Your task to perform on an android device: Empty the shopping cart on amazon. Add "logitech g502" to the cart on amazon, then select checkout. Image 0: 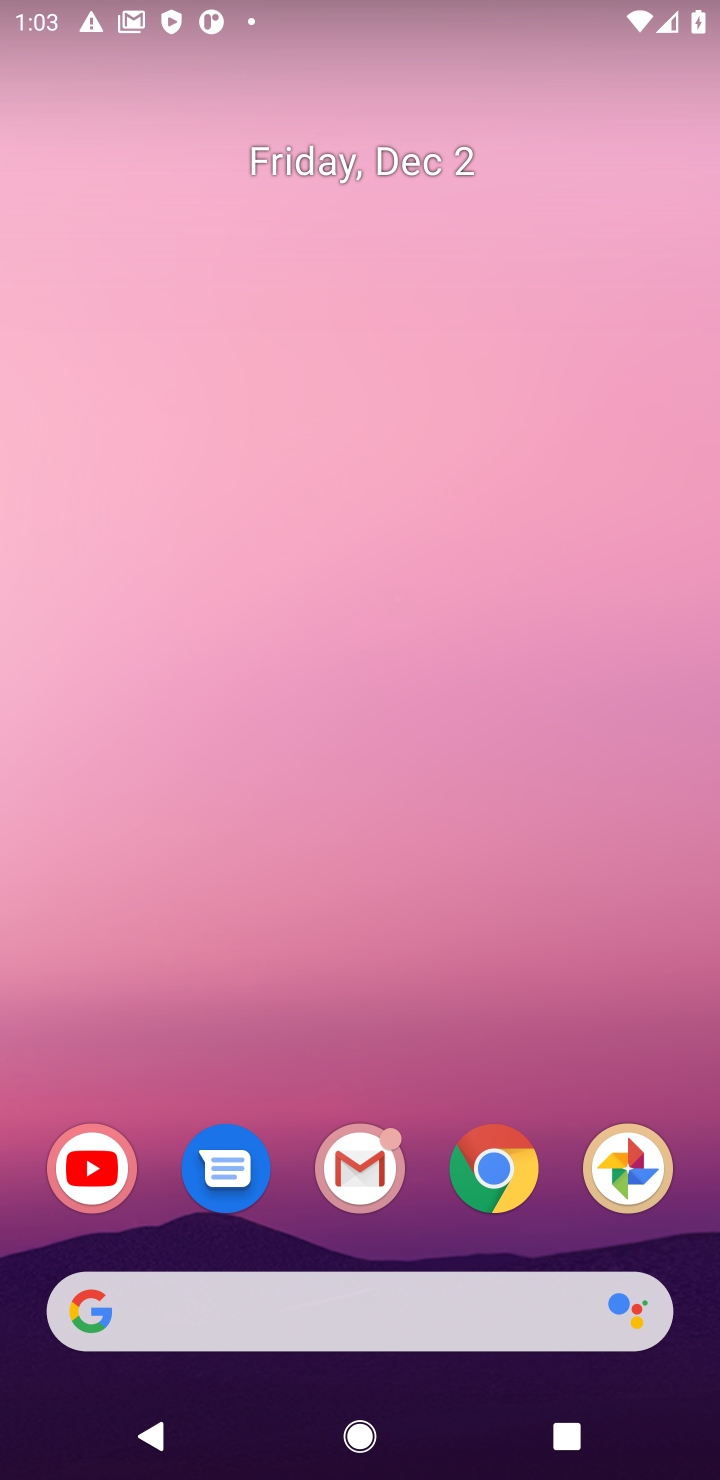
Step 0: click (484, 1169)
Your task to perform on an android device: Empty the shopping cart on amazon. Add "logitech g502" to the cart on amazon, then select checkout. Image 1: 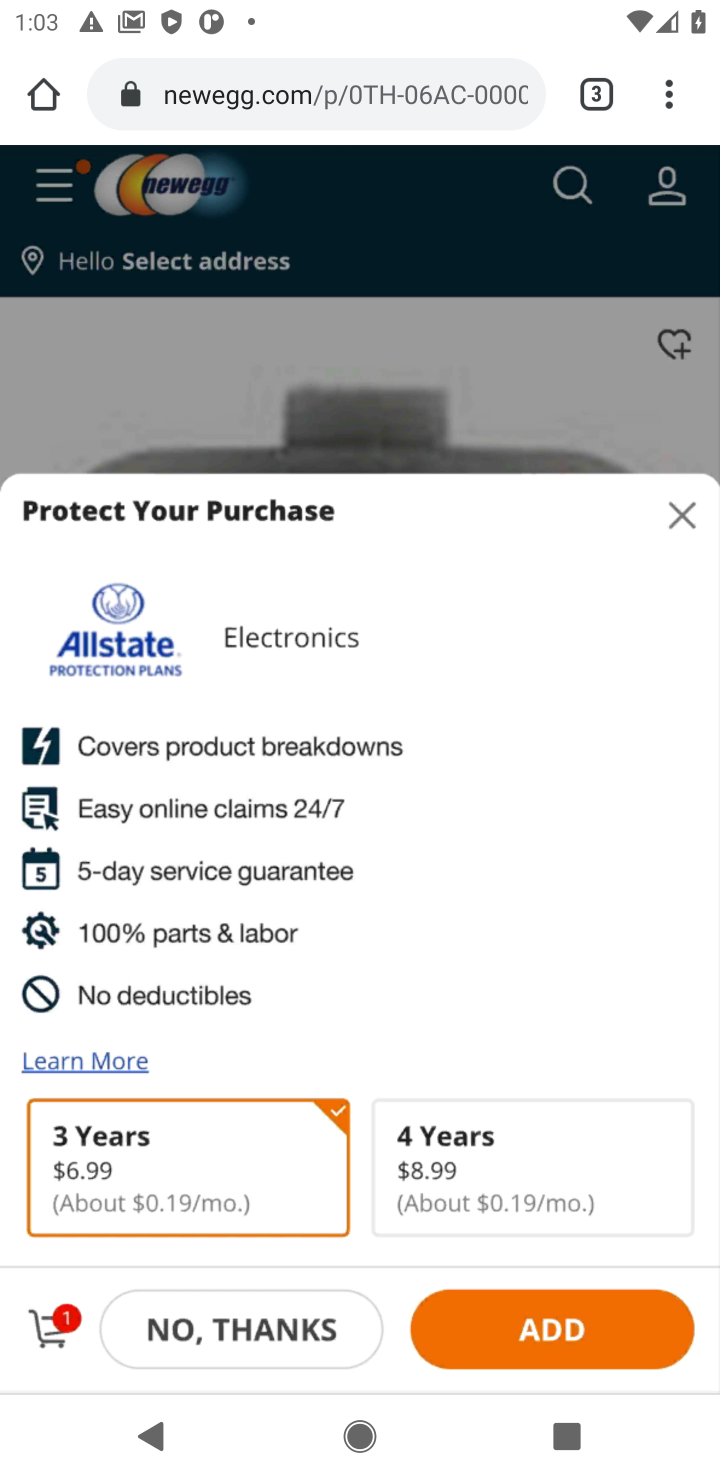
Step 1: click (330, 103)
Your task to perform on an android device: Empty the shopping cart on amazon. Add "logitech g502" to the cart on amazon, then select checkout. Image 2: 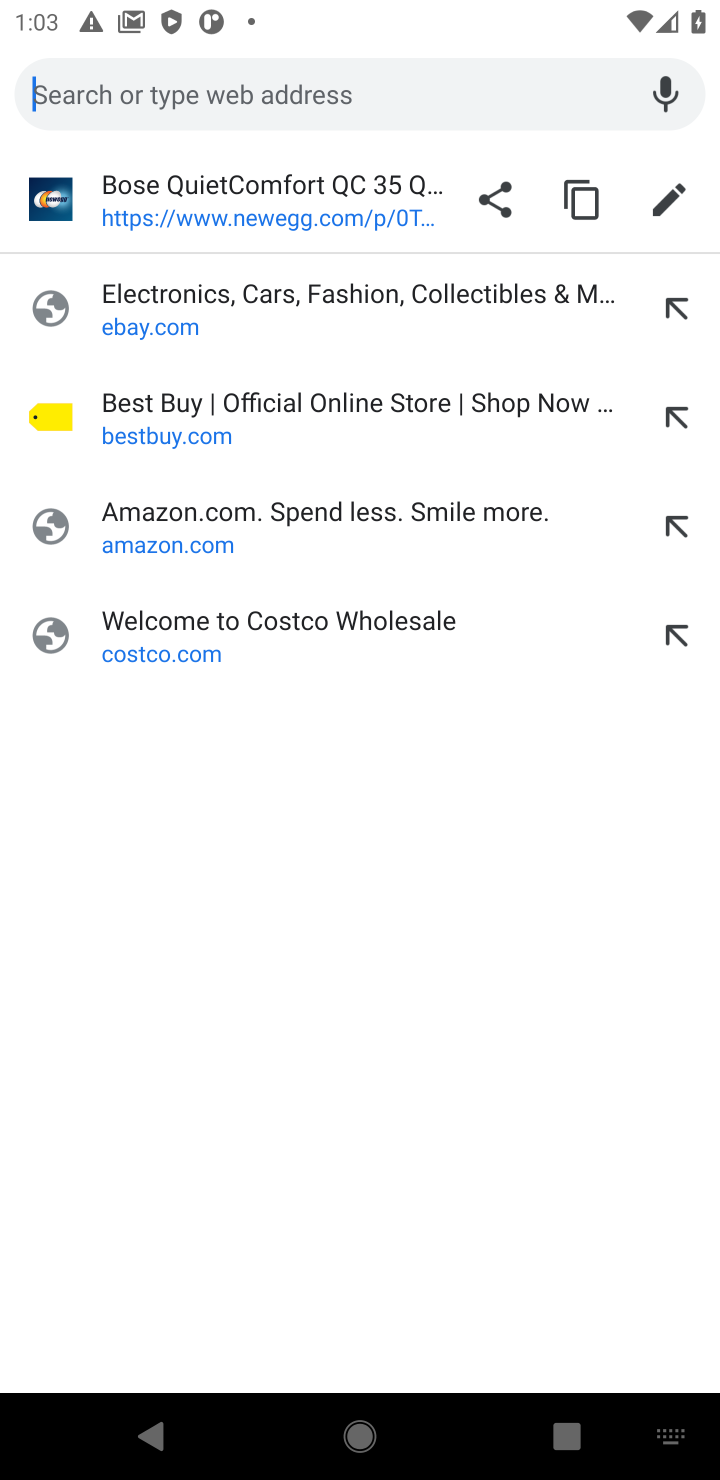
Step 2: click (155, 543)
Your task to perform on an android device: Empty the shopping cart on amazon. Add "logitech g502" to the cart on amazon, then select checkout. Image 3: 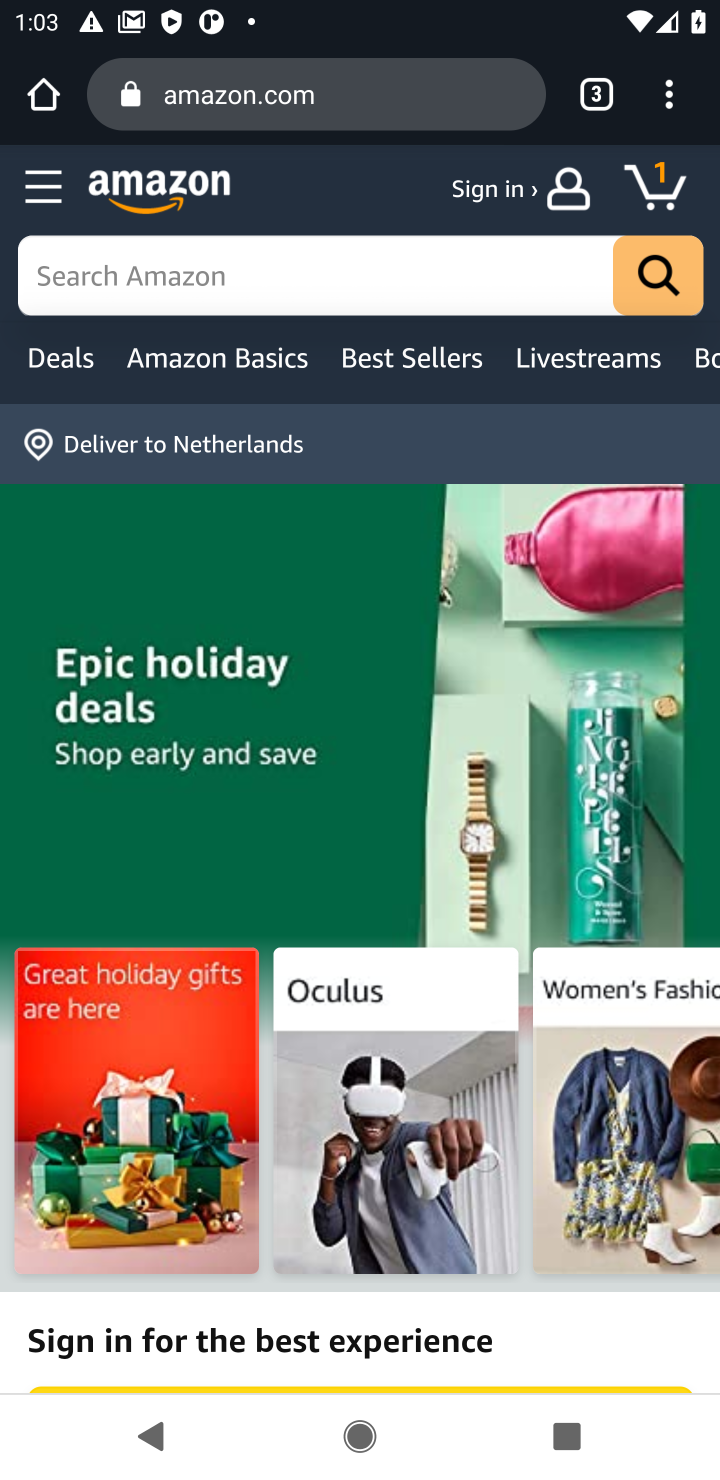
Step 3: click (657, 185)
Your task to perform on an android device: Empty the shopping cart on amazon. Add "logitech g502" to the cart on amazon, then select checkout. Image 4: 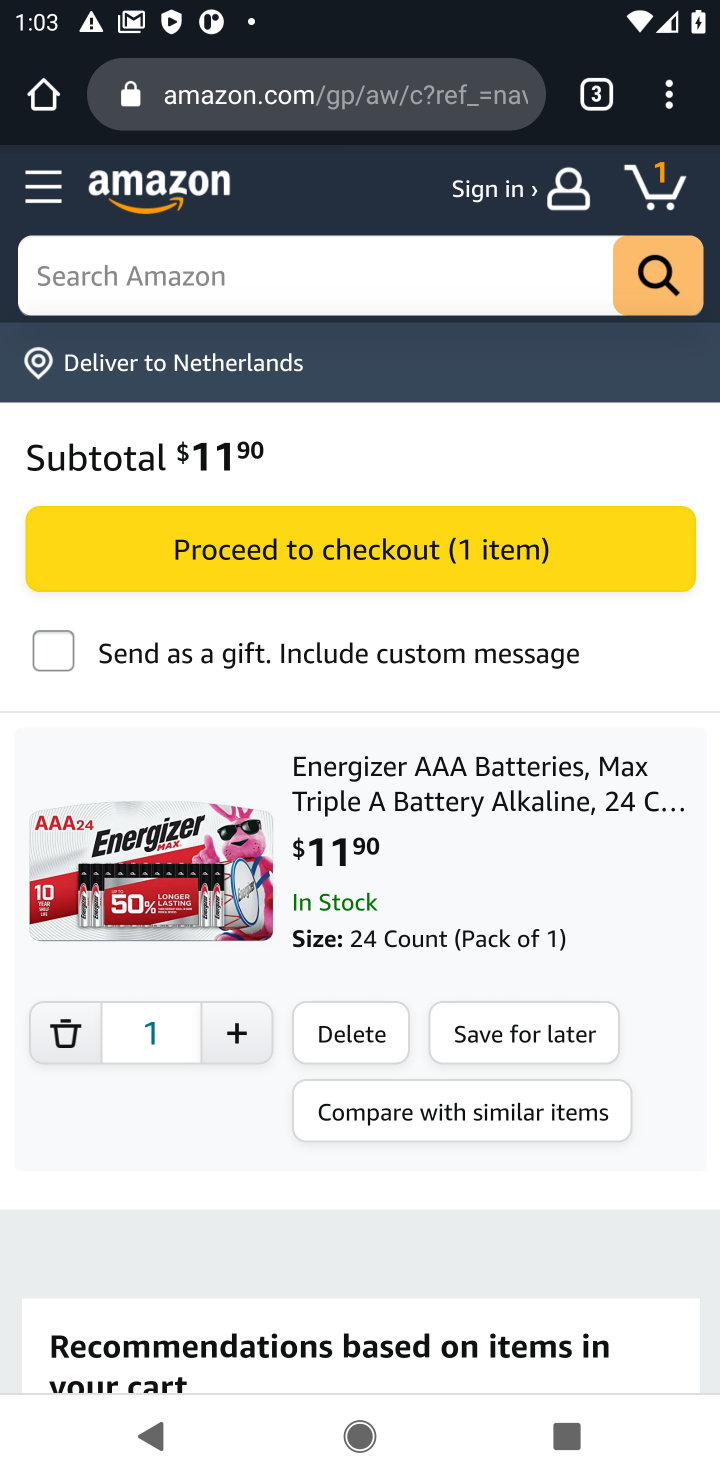
Step 4: click (347, 1021)
Your task to perform on an android device: Empty the shopping cart on amazon. Add "logitech g502" to the cart on amazon, then select checkout. Image 5: 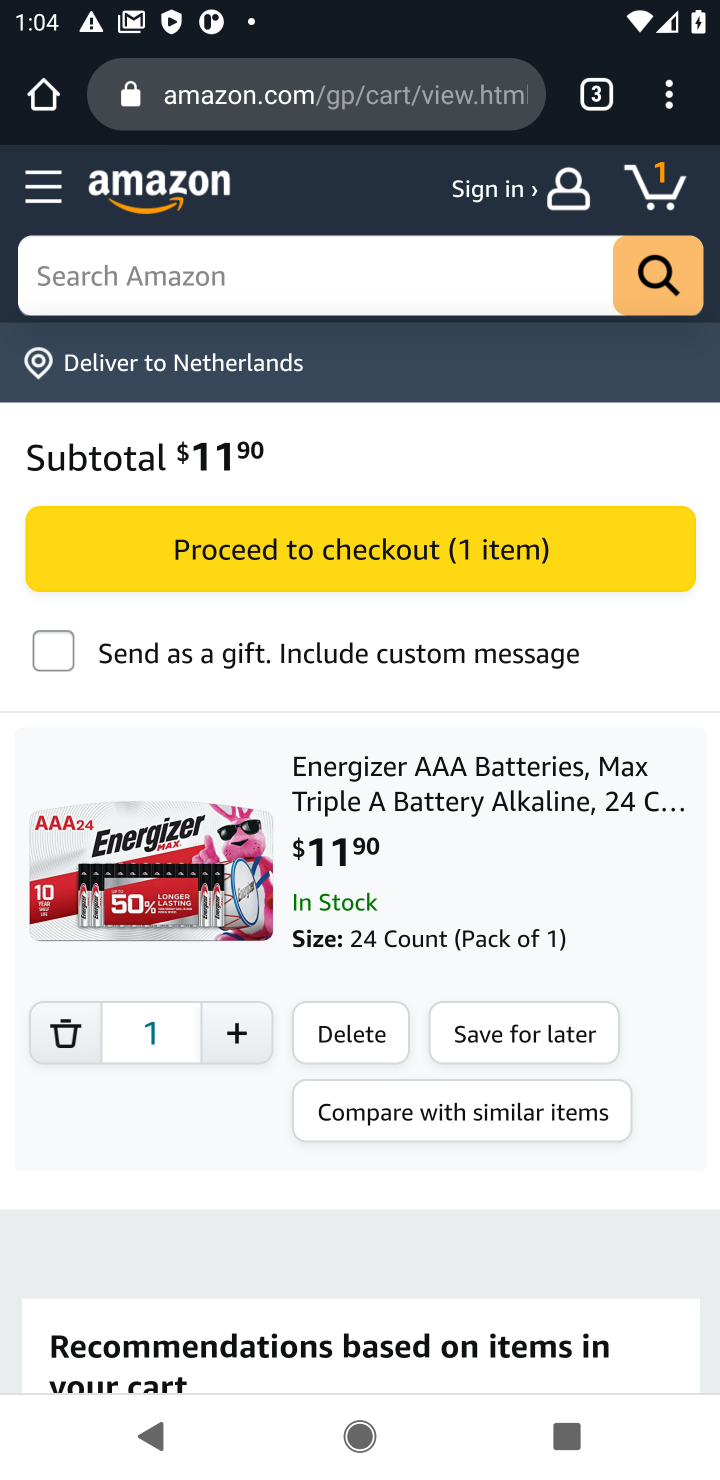
Step 5: click (350, 1030)
Your task to perform on an android device: Empty the shopping cart on amazon. Add "logitech g502" to the cart on amazon, then select checkout. Image 6: 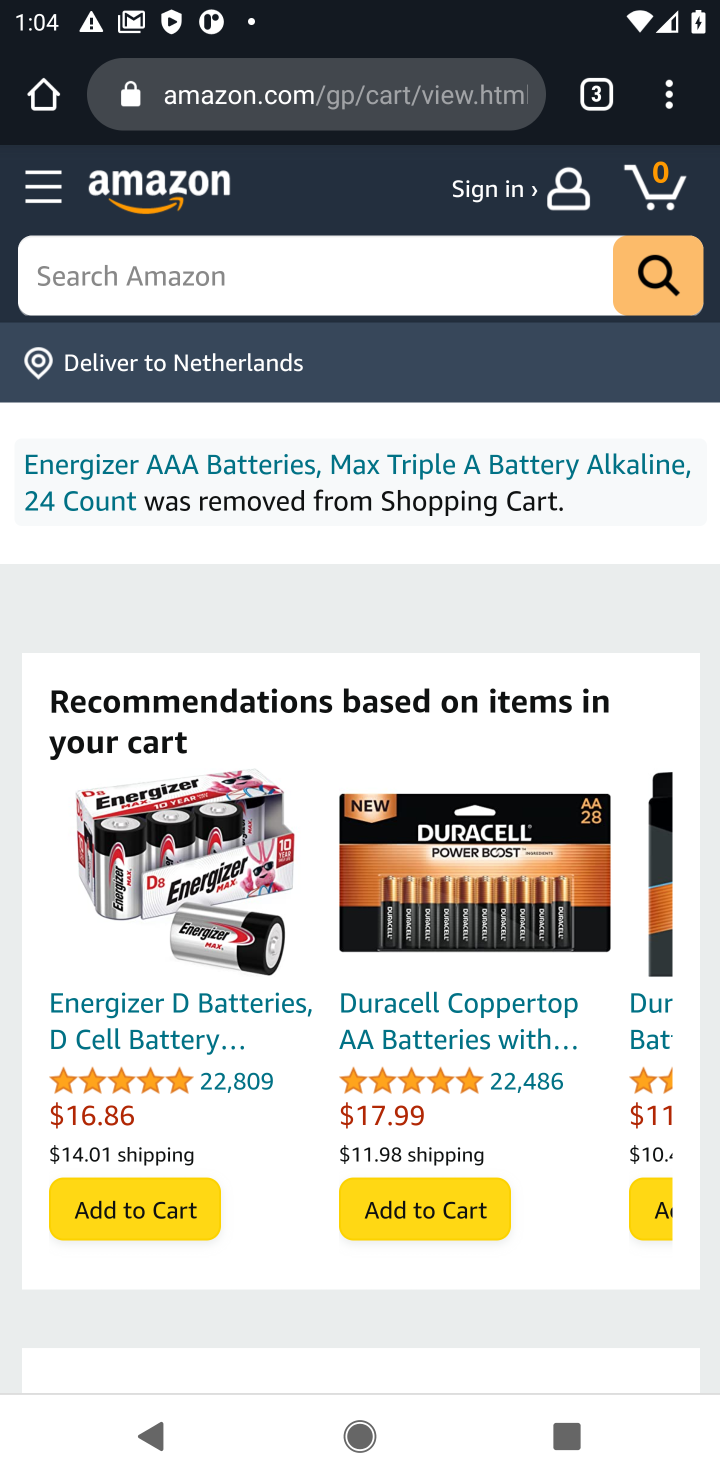
Step 6: click (133, 268)
Your task to perform on an android device: Empty the shopping cart on amazon. Add "logitech g502" to the cart on amazon, then select checkout. Image 7: 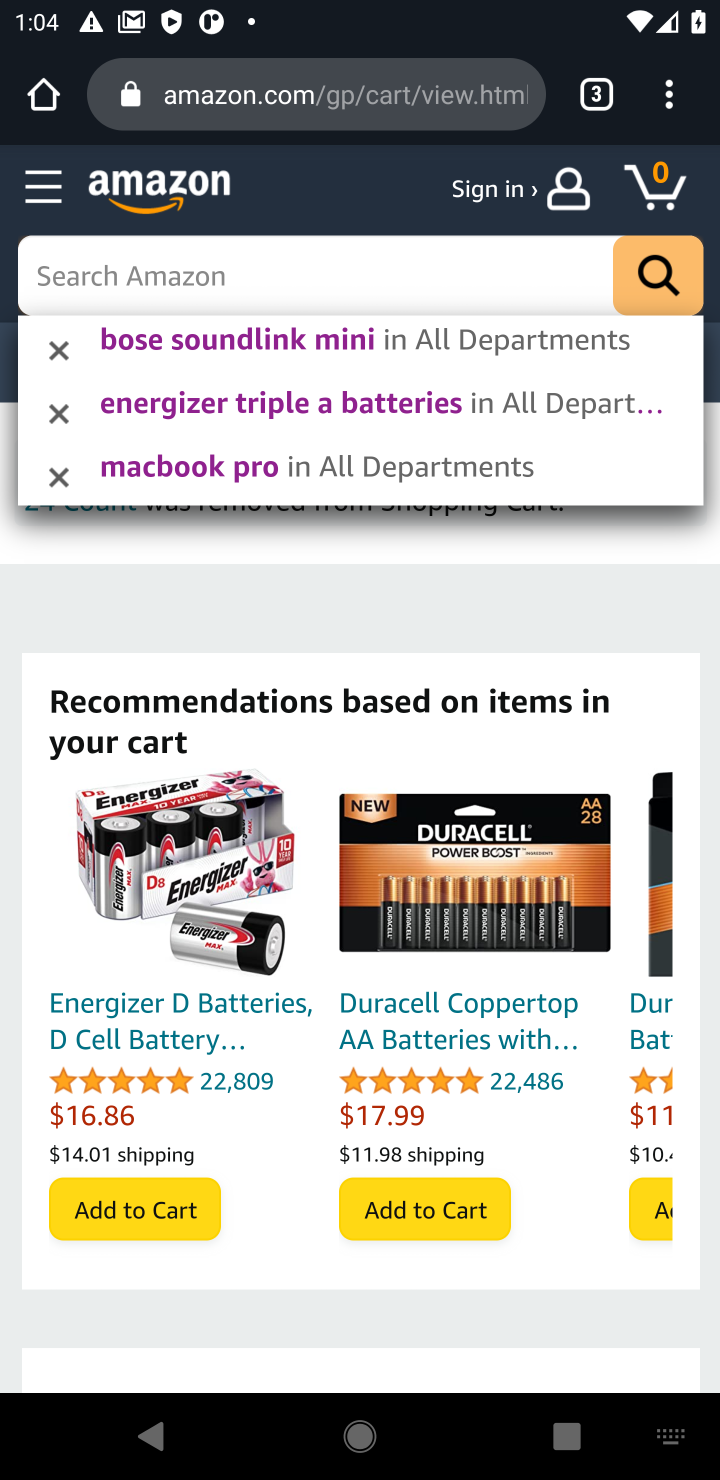
Step 7: type "logitech g502"
Your task to perform on an android device: Empty the shopping cart on amazon. Add "logitech g502" to the cart on amazon, then select checkout. Image 8: 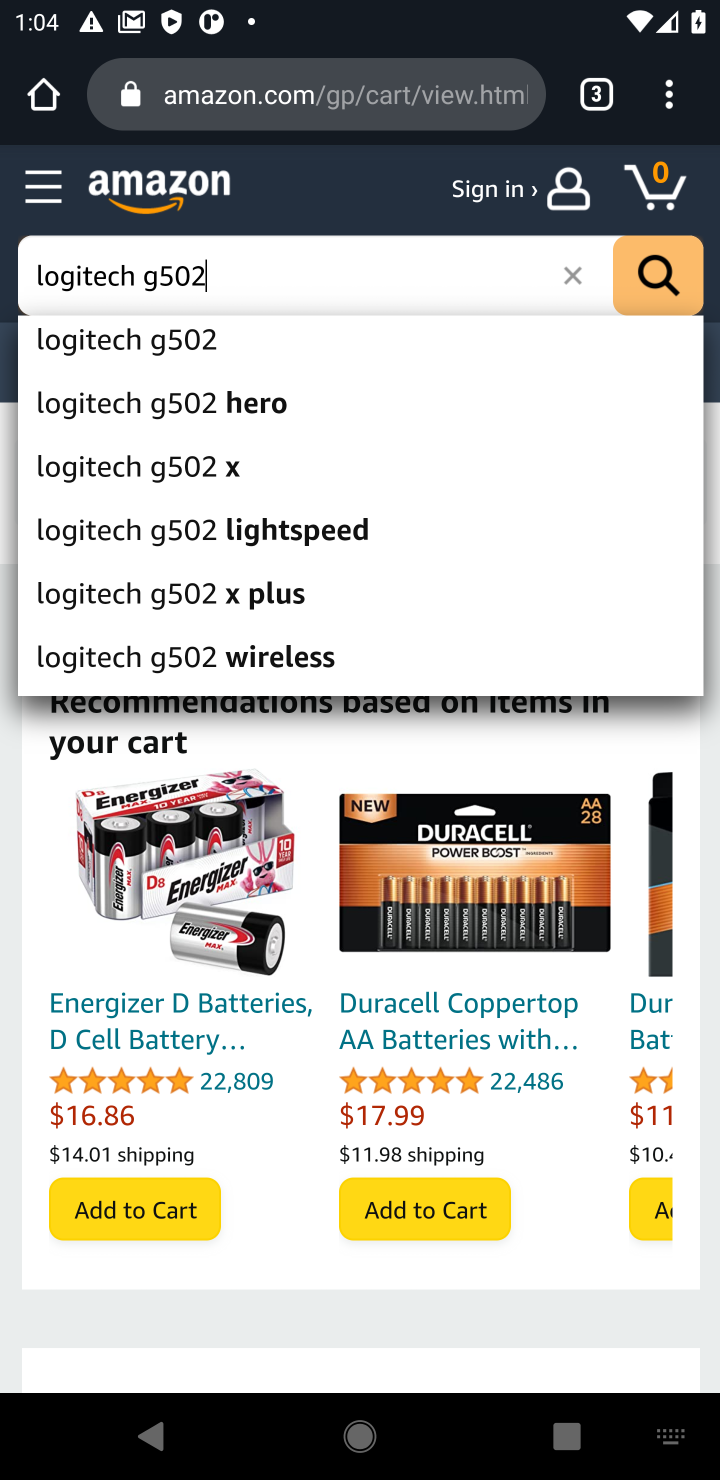
Step 8: click (124, 342)
Your task to perform on an android device: Empty the shopping cart on amazon. Add "logitech g502" to the cart on amazon, then select checkout. Image 9: 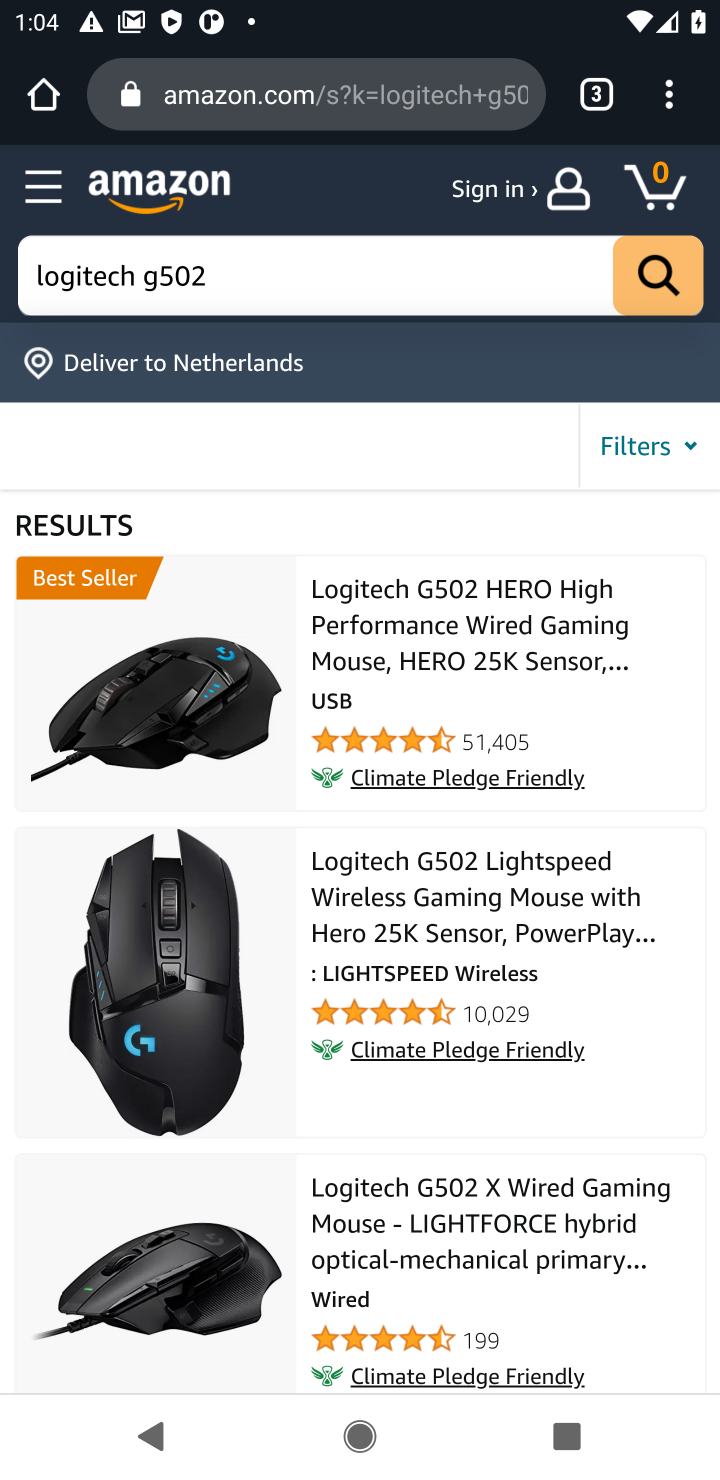
Step 9: drag from (373, 856) to (386, 493)
Your task to perform on an android device: Empty the shopping cart on amazon. Add "logitech g502" to the cart on amazon, then select checkout. Image 10: 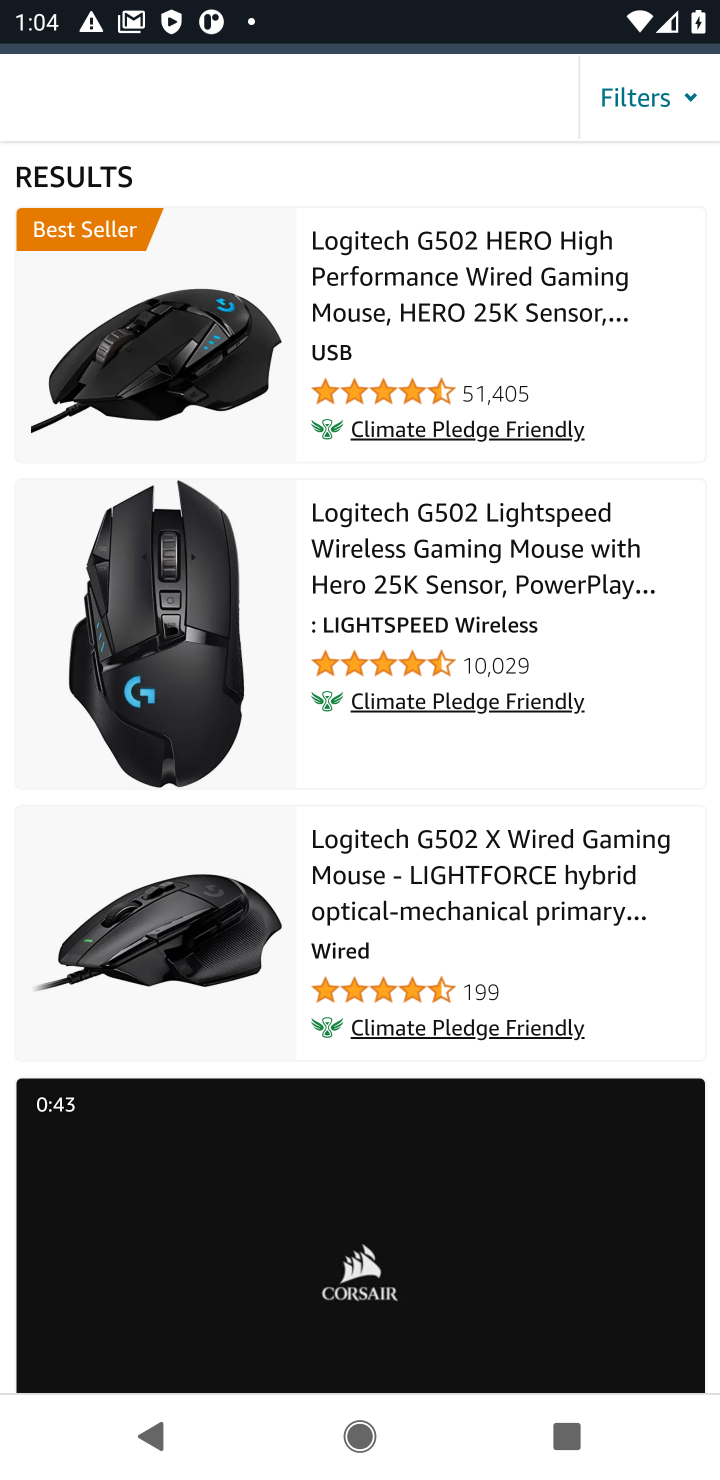
Step 10: drag from (429, 911) to (416, 277)
Your task to perform on an android device: Empty the shopping cart on amazon. Add "logitech g502" to the cart on amazon, then select checkout. Image 11: 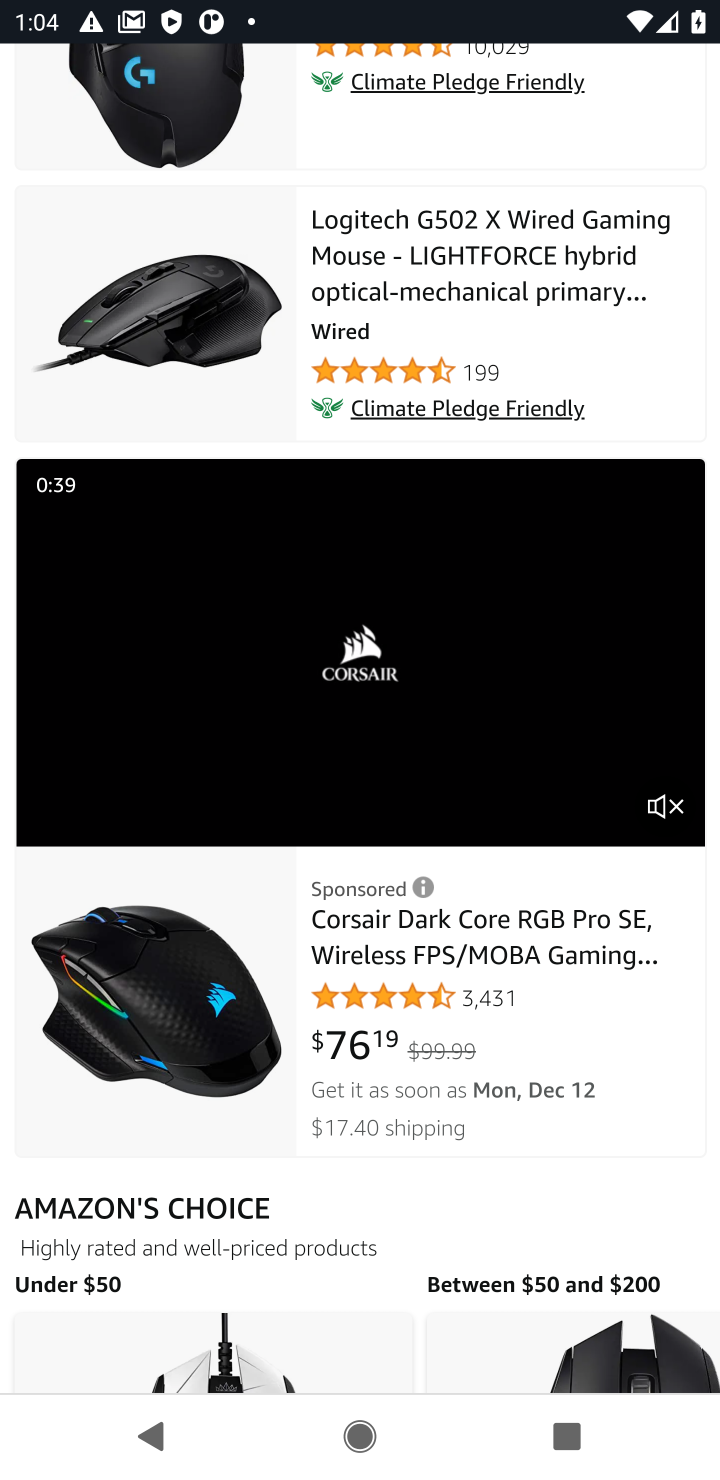
Step 11: drag from (393, 1065) to (349, 313)
Your task to perform on an android device: Empty the shopping cart on amazon. Add "logitech g502" to the cart on amazon, then select checkout. Image 12: 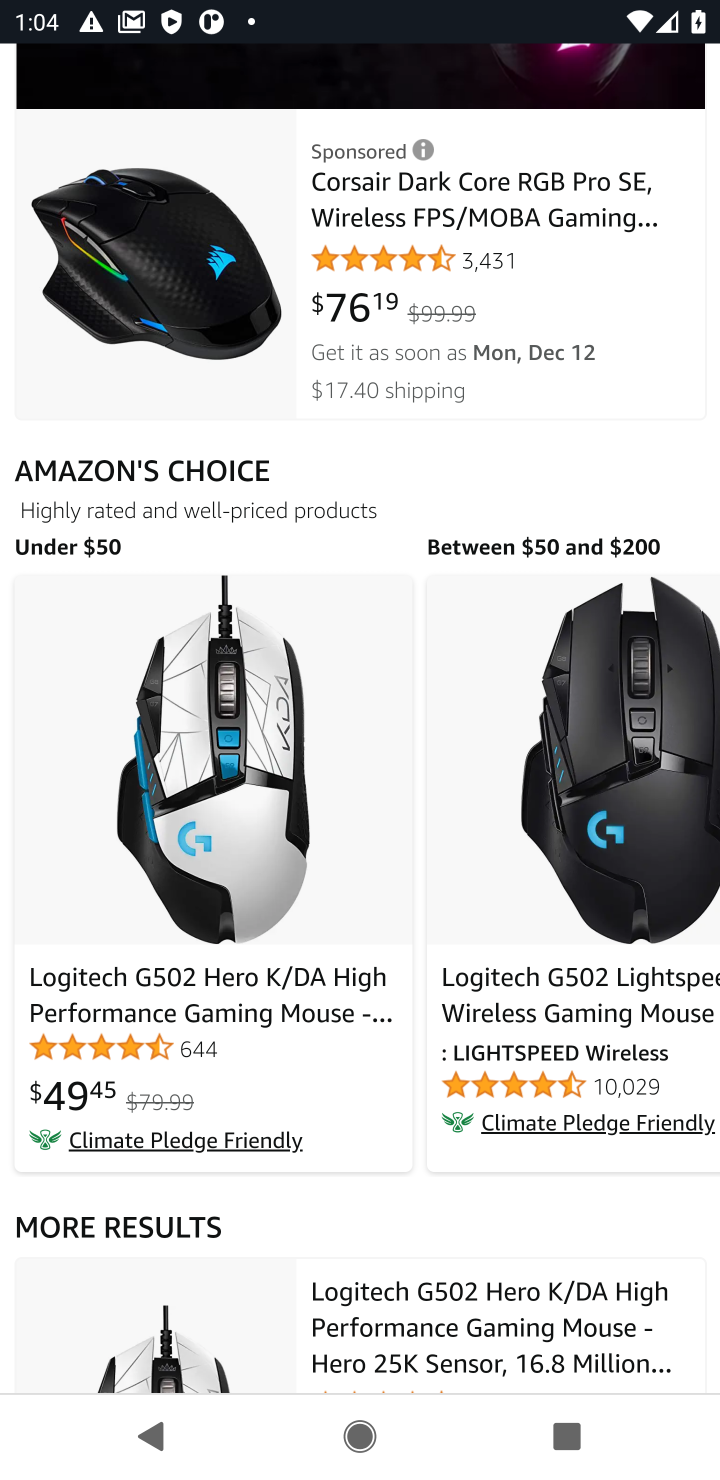
Step 12: drag from (386, 988) to (388, 500)
Your task to perform on an android device: Empty the shopping cart on amazon. Add "logitech g502" to the cart on amazon, then select checkout. Image 13: 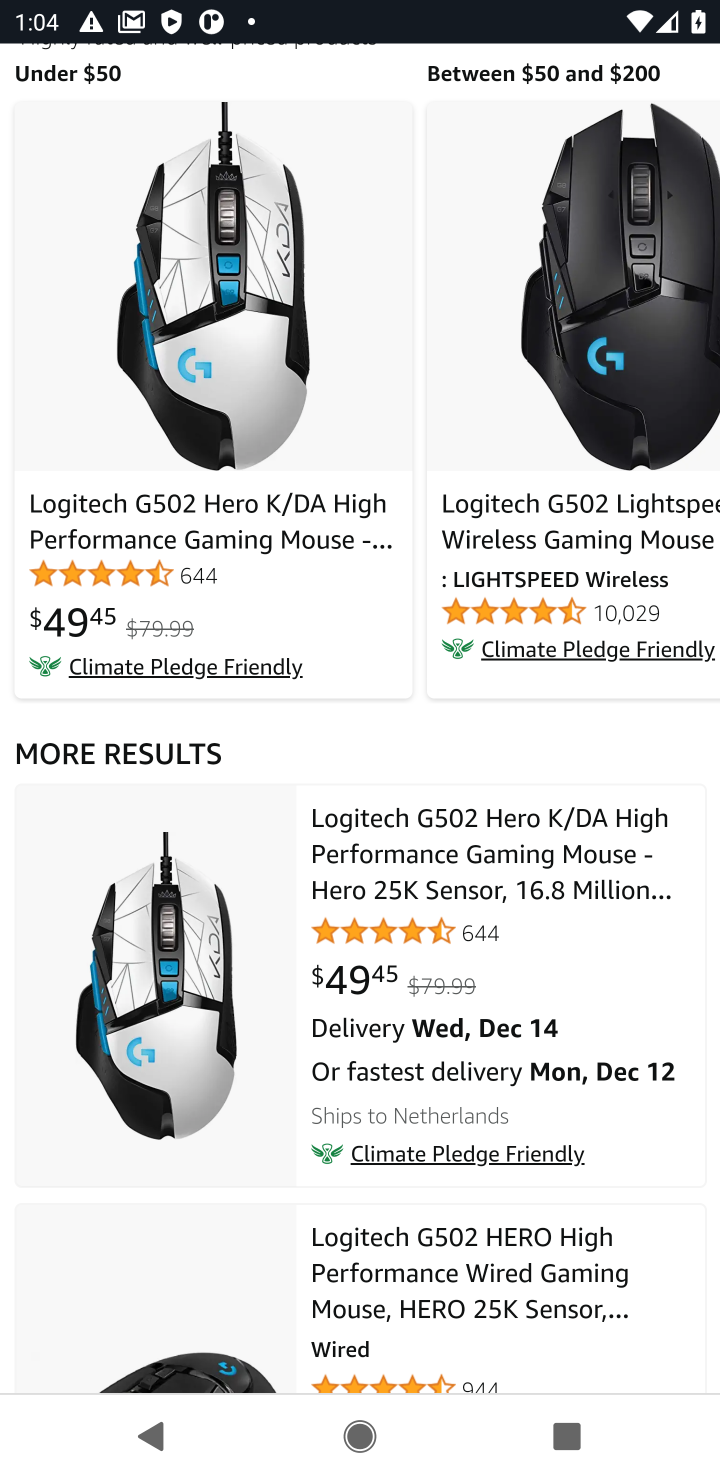
Step 13: click (387, 862)
Your task to perform on an android device: Empty the shopping cart on amazon. Add "logitech g502" to the cart on amazon, then select checkout. Image 14: 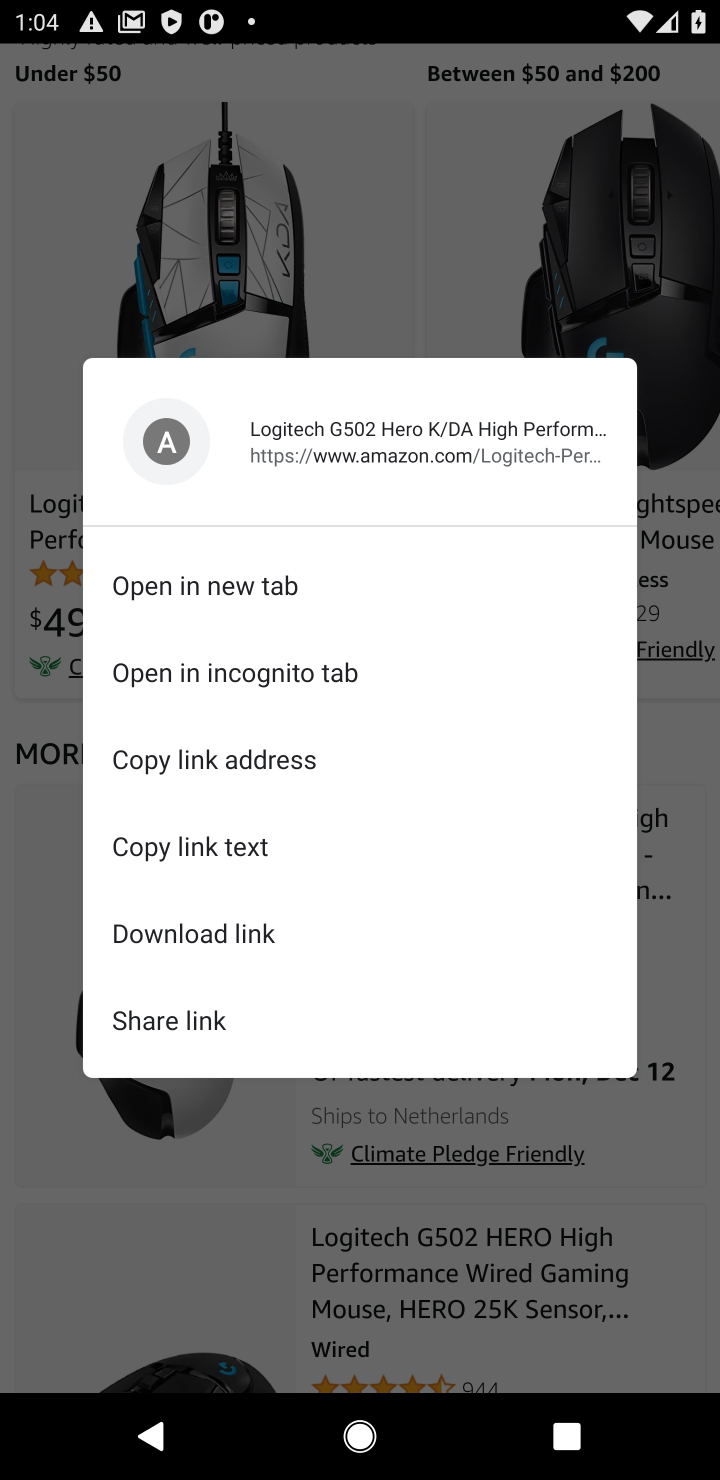
Step 14: click (662, 875)
Your task to perform on an android device: Empty the shopping cart on amazon. Add "logitech g502" to the cart on amazon, then select checkout. Image 15: 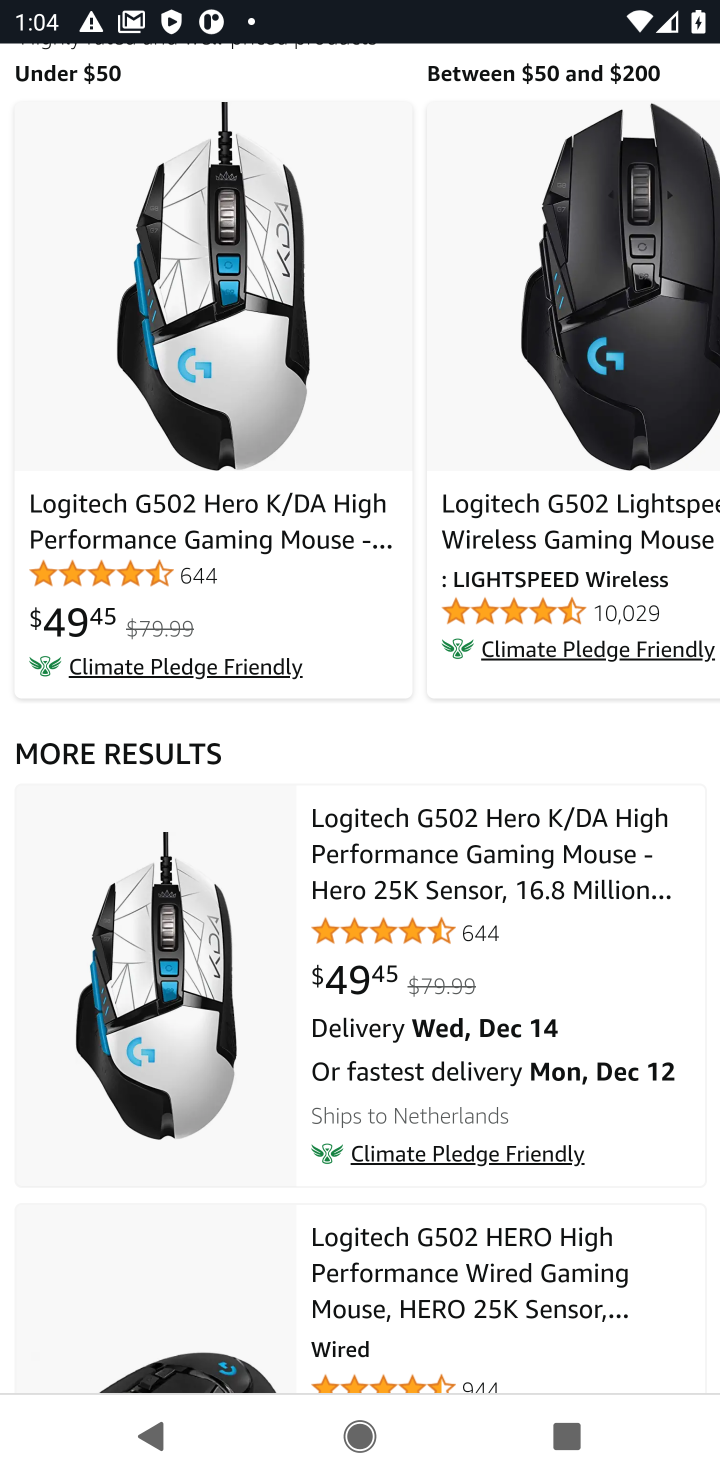
Step 15: click (540, 856)
Your task to perform on an android device: Empty the shopping cart on amazon. Add "logitech g502" to the cart on amazon, then select checkout. Image 16: 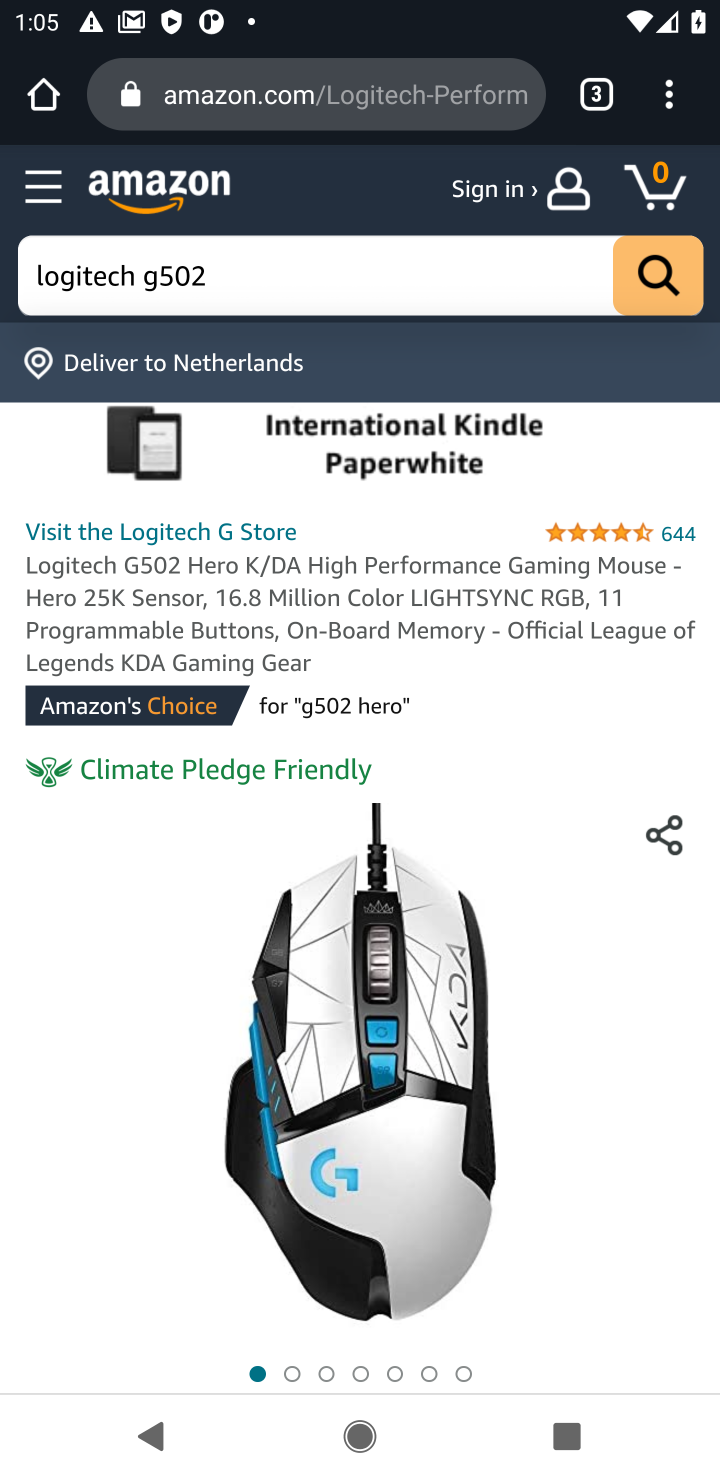
Step 16: drag from (546, 1002) to (537, 448)
Your task to perform on an android device: Empty the shopping cart on amazon. Add "logitech g502" to the cart on amazon, then select checkout. Image 17: 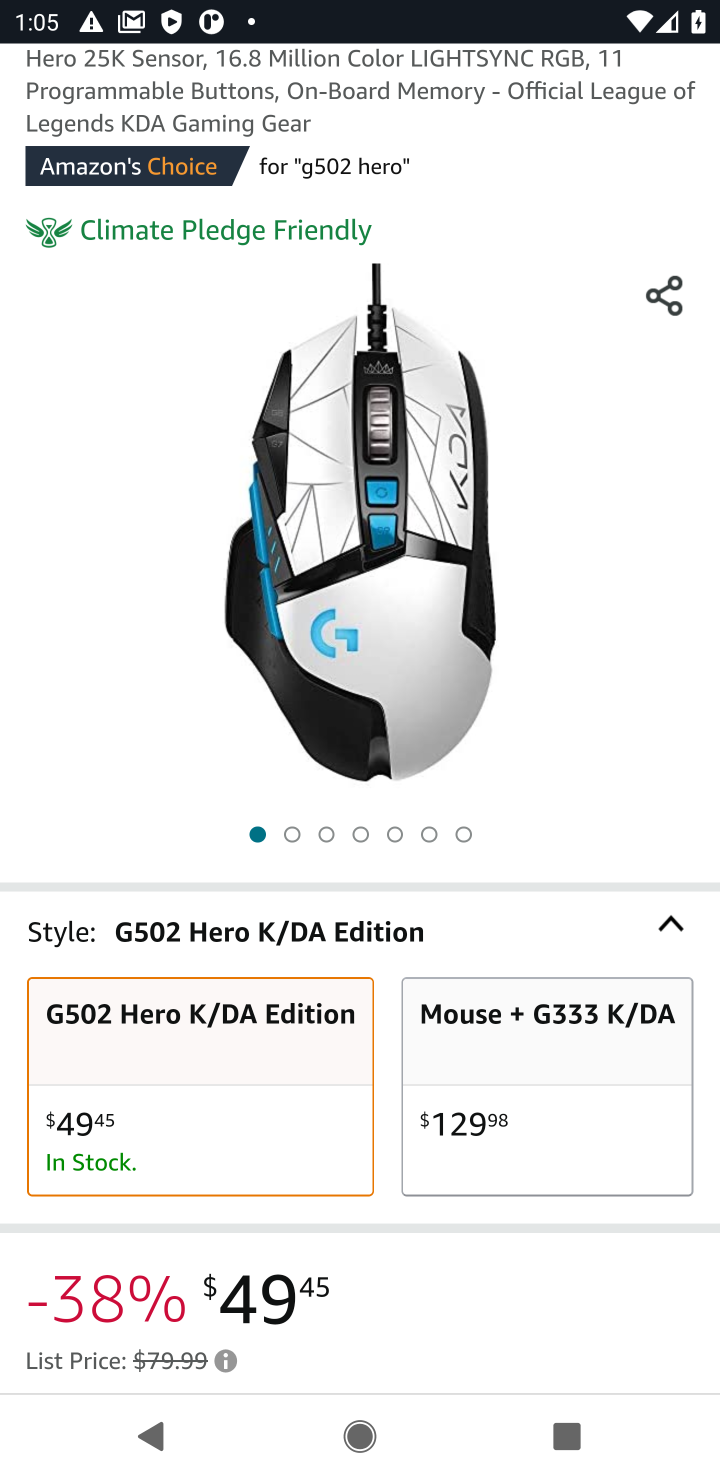
Step 17: drag from (437, 1174) to (437, 369)
Your task to perform on an android device: Empty the shopping cart on amazon. Add "logitech g502" to the cart on amazon, then select checkout. Image 18: 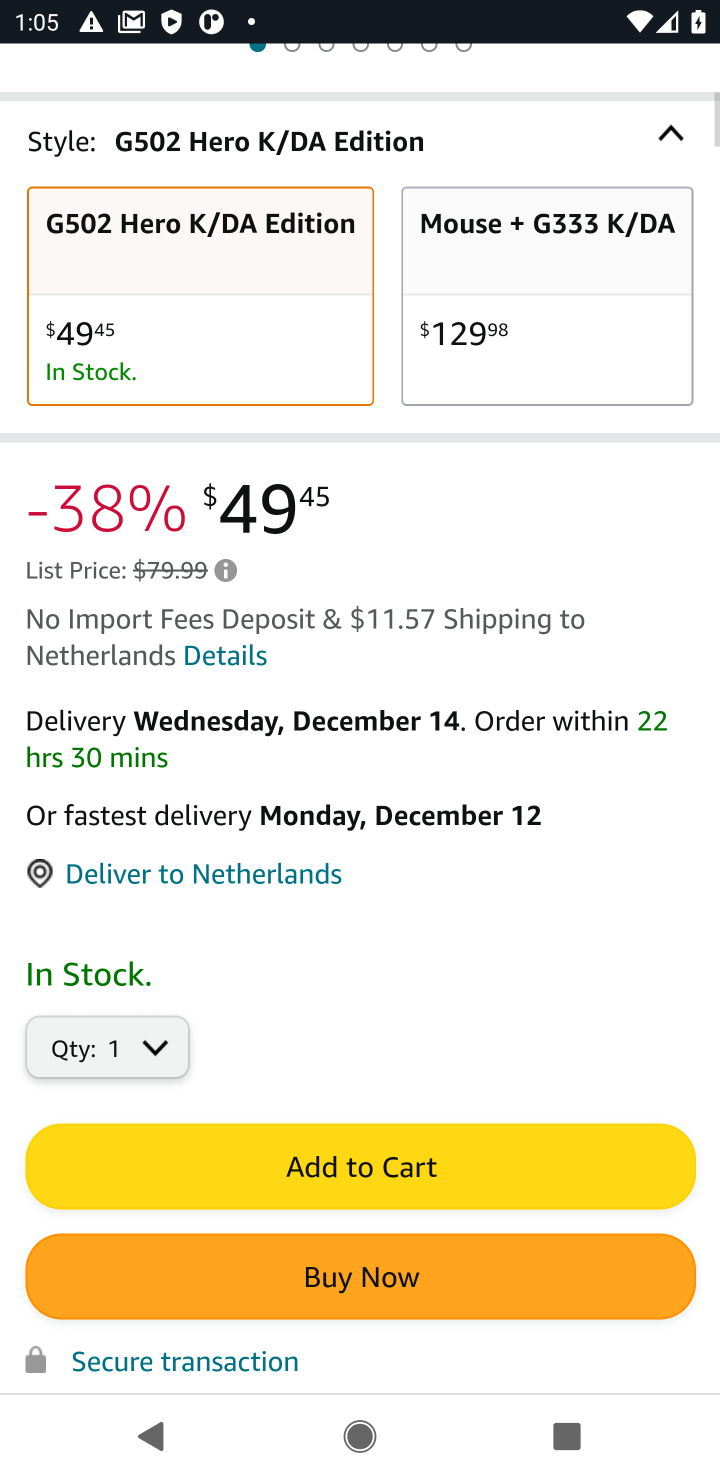
Step 18: drag from (345, 1046) to (358, 686)
Your task to perform on an android device: Empty the shopping cart on amazon. Add "logitech g502" to the cart on amazon, then select checkout. Image 19: 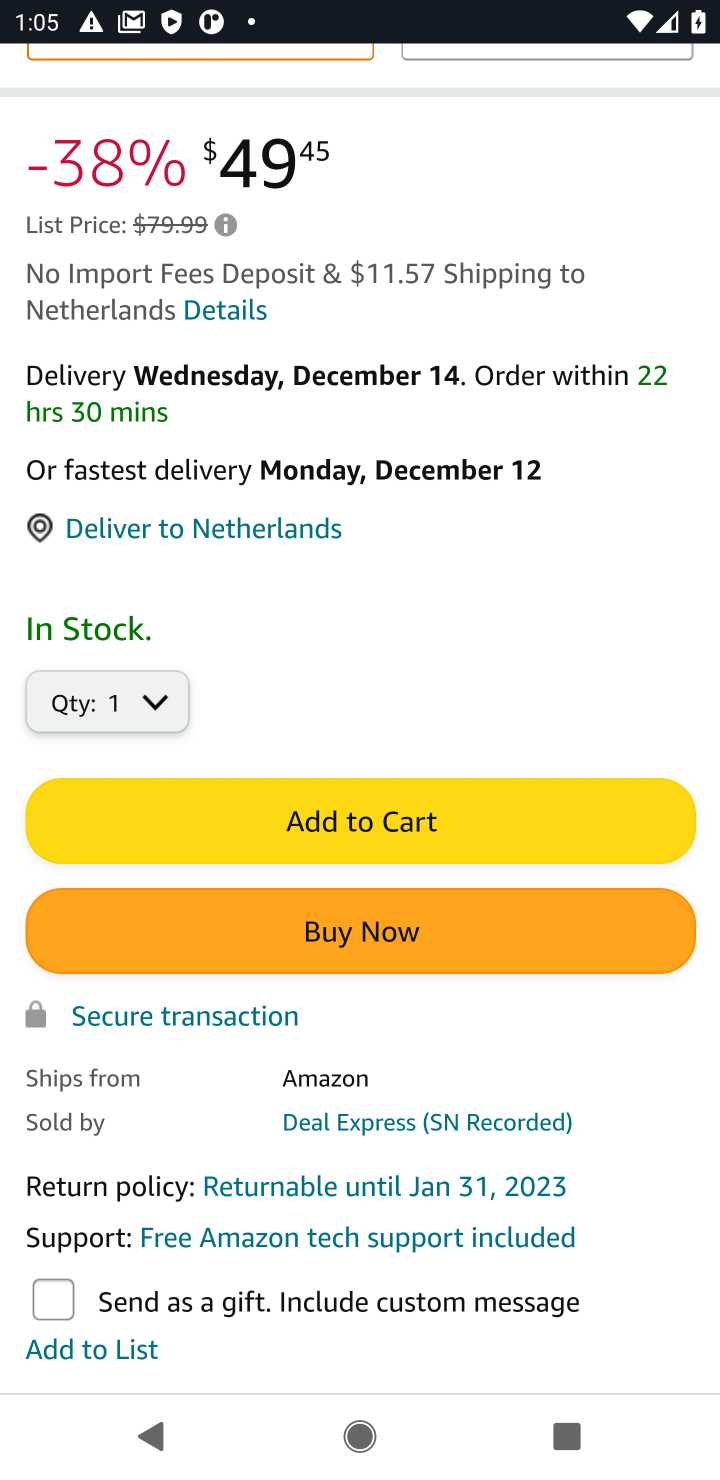
Step 19: click (354, 819)
Your task to perform on an android device: Empty the shopping cart on amazon. Add "logitech g502" to the cart on amazon, then select checkout. Image 20: 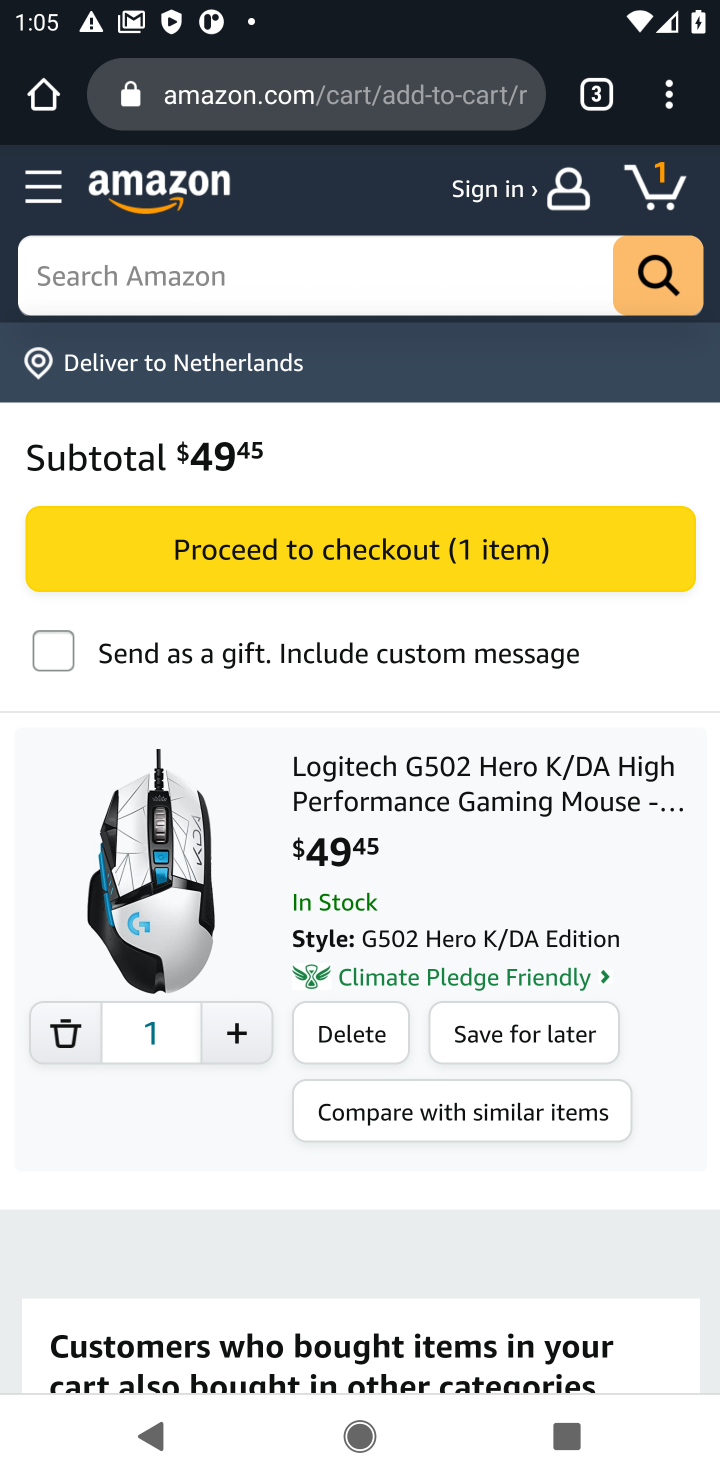
Step 20: click (352, 546)
Your task to perform on an android device: Empty the shopping cart on amazon. Add "logitech g502" to the cart on amazon, then select checkout. Image 21: 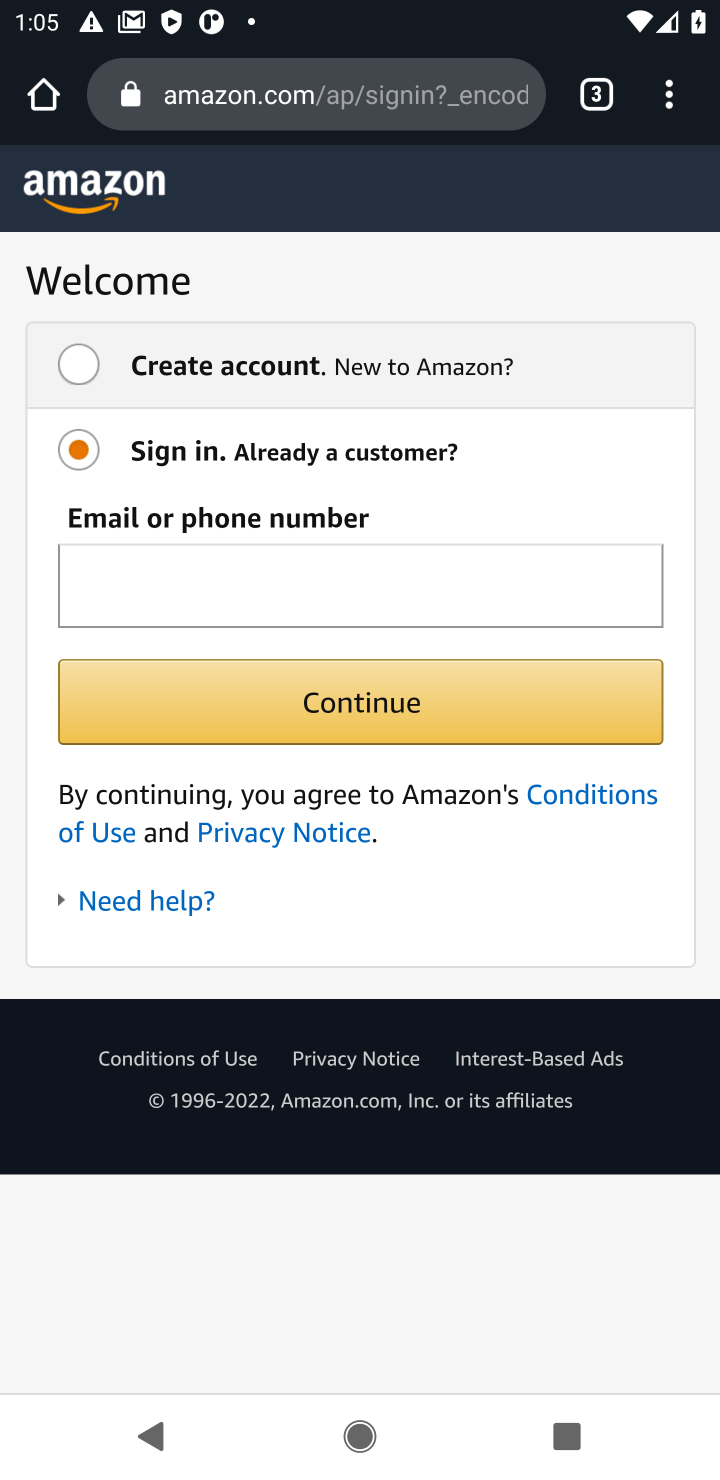
Step 21: task complete